Your task to perform on an android device: change notification settings in the gmail app Image 0: 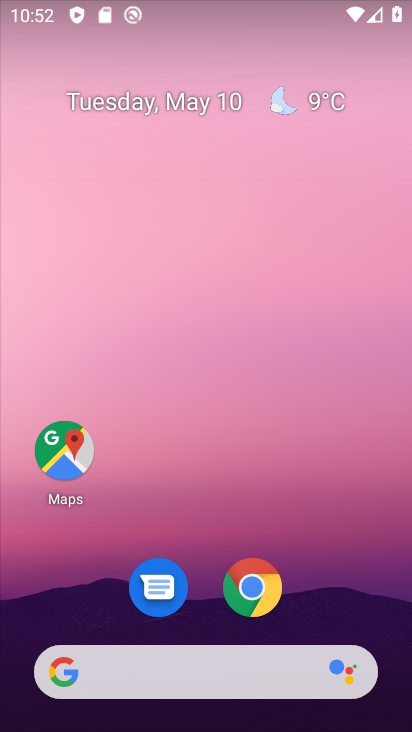
Step 0: drag from (351, 592) to (405, 7)
Your task to perform on an android device: change notification settings in the gmail app Image 1: 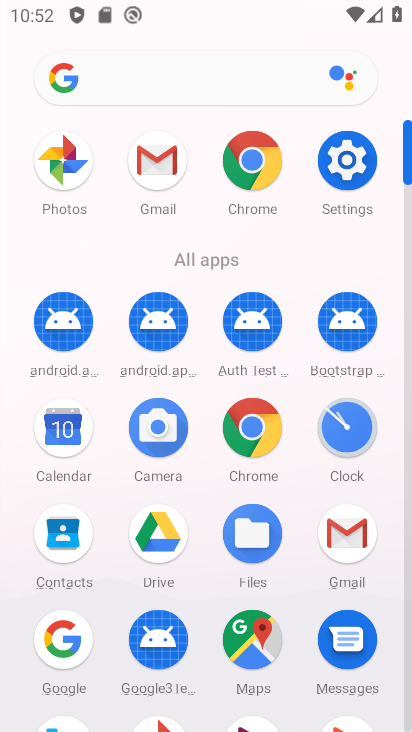
Step 1: click (164, 170)
Your task to perform on an android device: change notification settings in the gmail app Image 2: 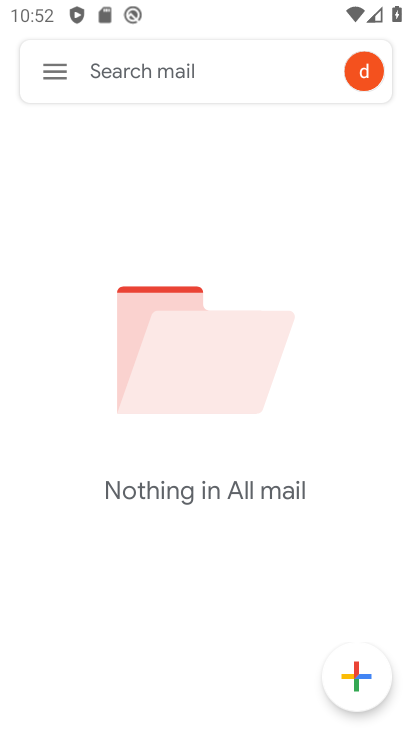
Step 2: click (58, 72)
Your task to perform on an android device: change notification settings in the gmail app Image 3: 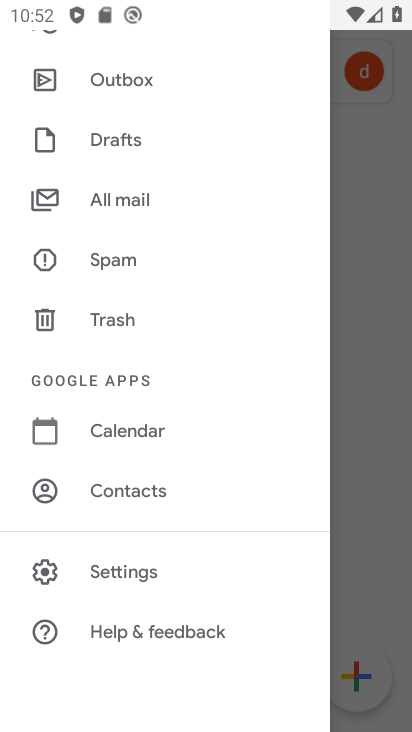
Step 3: click (103, 570)
Your task to perform on an android device: change notification settings in the gmail app Image 4: 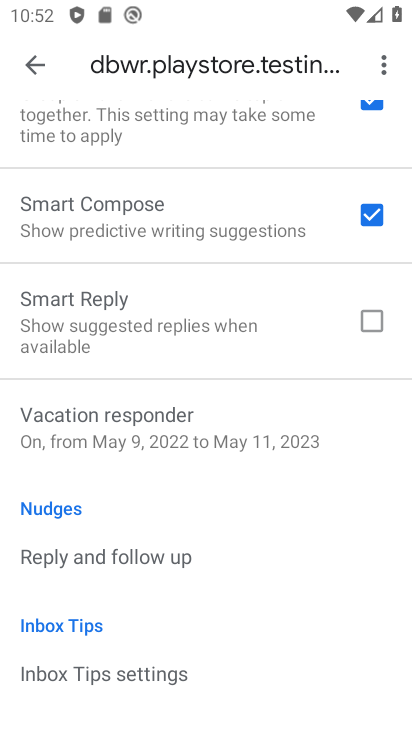
Step 4: click (34, 74)
Your task to perform on an android device: change notification settings in the gmail app Image 5: 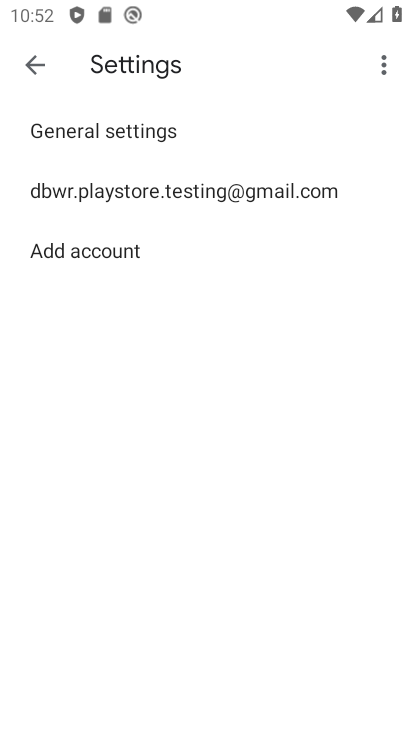
Step 5: click (106, 138)
Your task to perform on an android device: change notification settings in the gmail app Image 6: 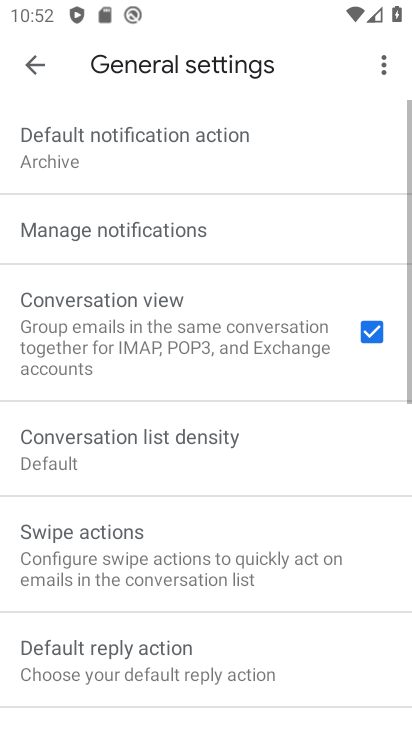
Step 6: click (100, 228)
Your task to perform on an android device: change notification settings in the gmail app Image 7: 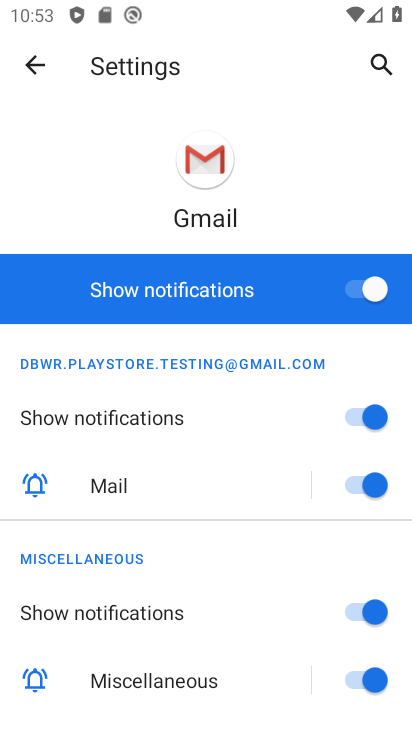
Step 7: click (383, 290)
Your task to perform on an android device: change notification settings in the gmail app Image 8: 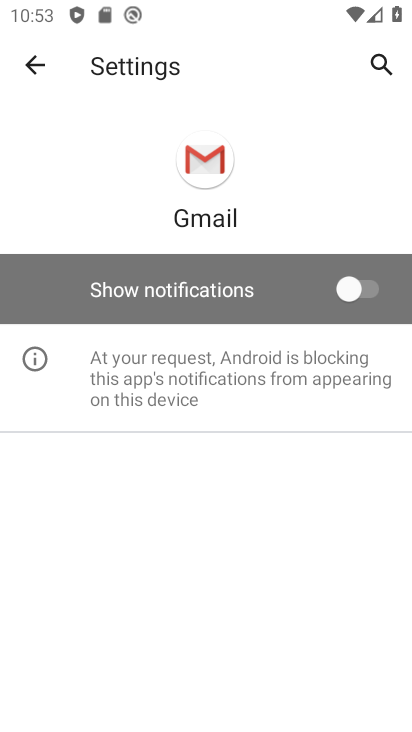
Step 8: task complete